Your task to perform on an android device: What is the recent news? Image 0: 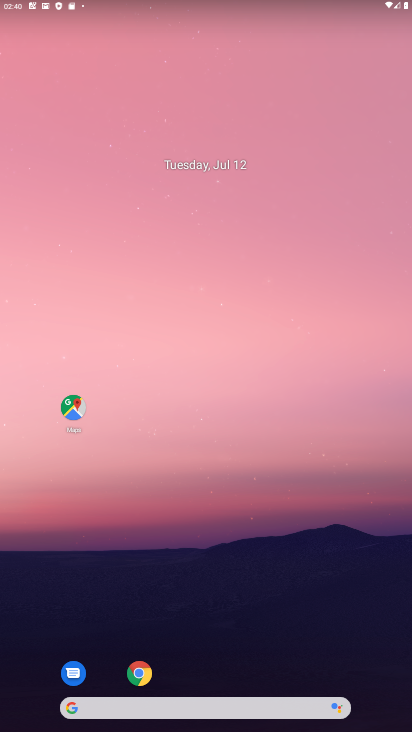
Step 0: click (194, 708)
Your task to perform on an android device: What is the recent news? Image 1: 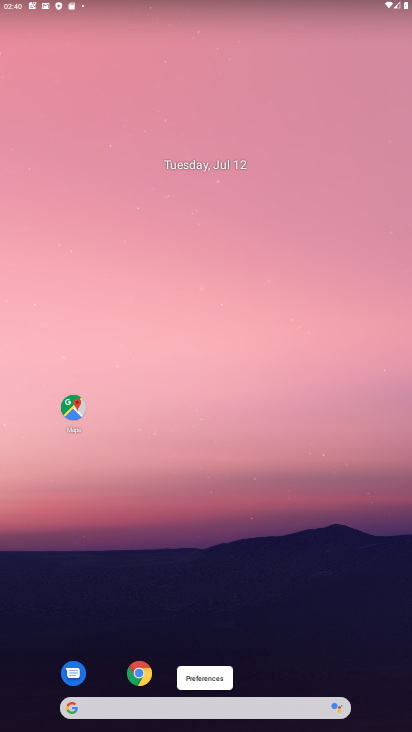
Step 1: click (233, 709)
Your task to perform on an android device: What is the recent news? Image 2: 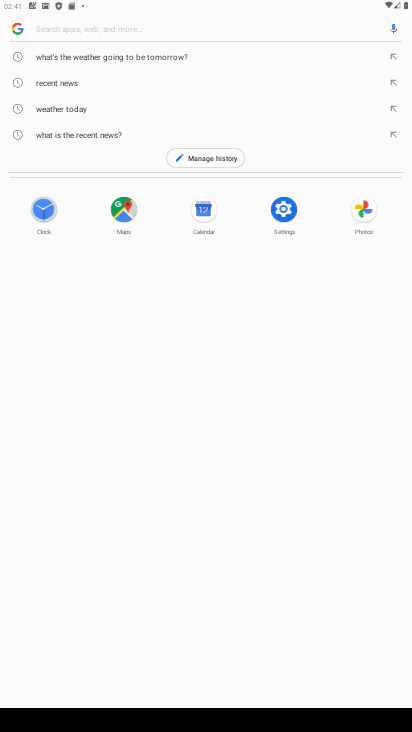
Step 2: type "What is the recent news?"
Your task to perform on an android device: What is the recent news? Image 3: 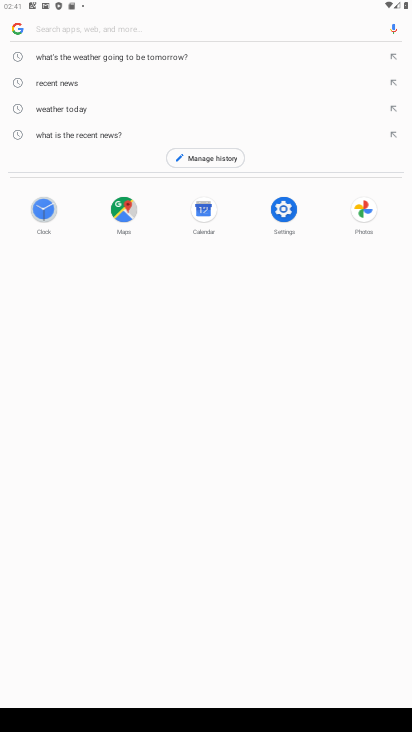
Step 3: click (106, 22)
Your task to perform on an android device: What is the recent news? Image 4: 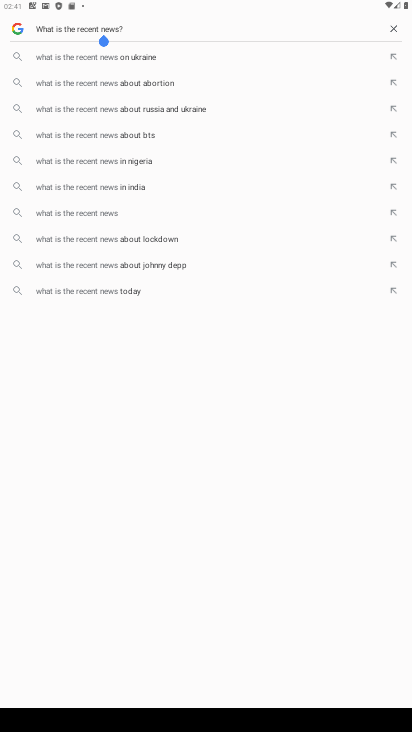
Step 4: press enter
Your task to perform on an android device: What is the recent news? Image 5: 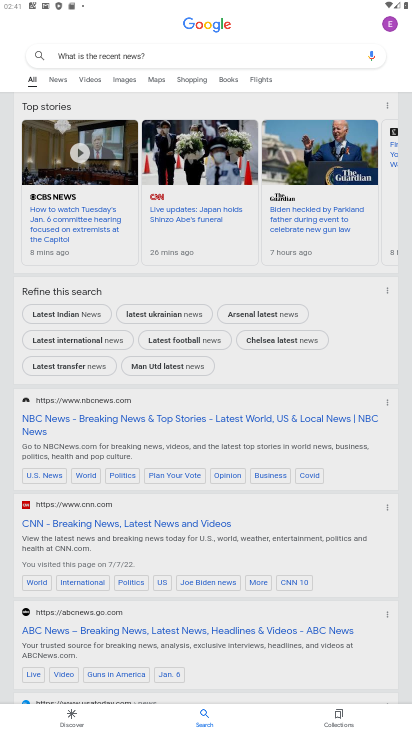
Step 5: task complete